Your task to perform on an android device: Is it going to rain this weekend? Image 0: 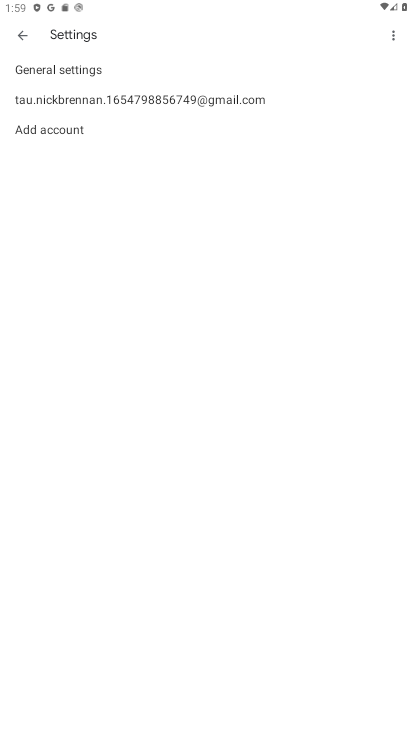
Step 0: press home button
Your task to perform on an android device: Is it going to rain this weekend? Image 1: 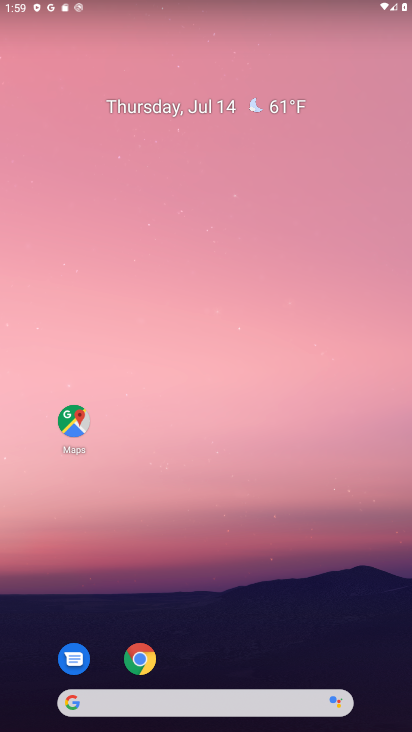
Step 1: drag from (209, 678) to (226, 0)
Your task to perform on an android device: Is it going to rain this weekend? Image 2: 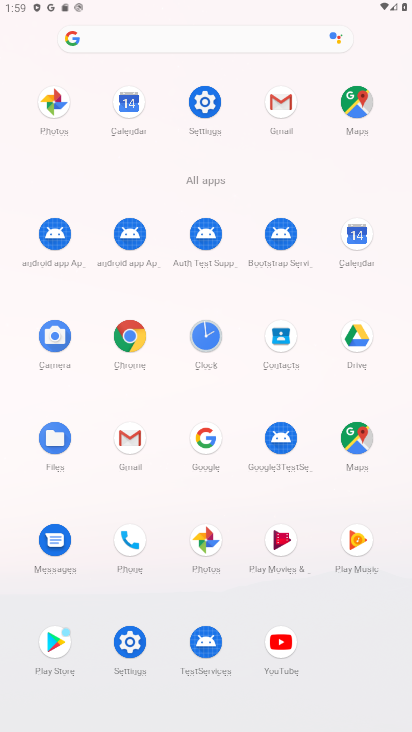
Step 2: click (208, 444)
Your task to perform on an android device: Is it going to rain this weekend? Image 3: 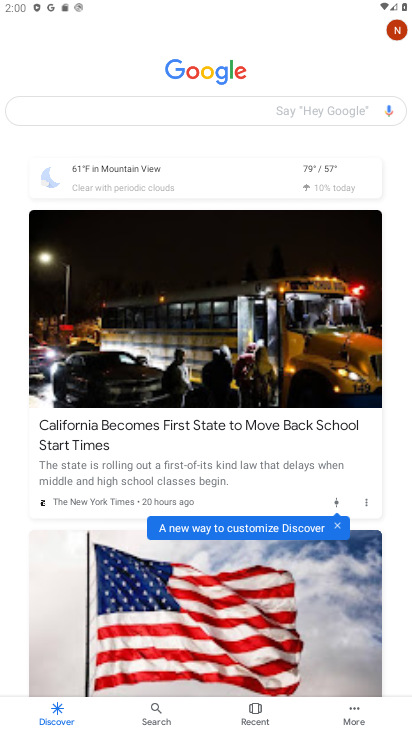
Step 3: click (212, 185)
Your task to perform on an android device: Is it going to rain this weekend? Image 4: 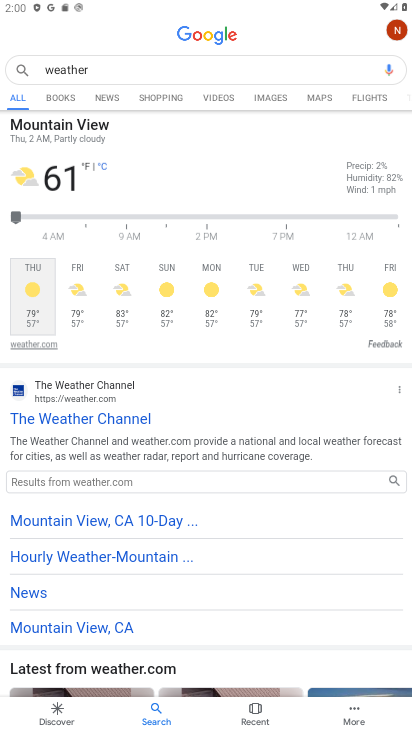
Step 4: task complete